Your task to perform on an android device: refresh tabs in the chrome app Image 0: 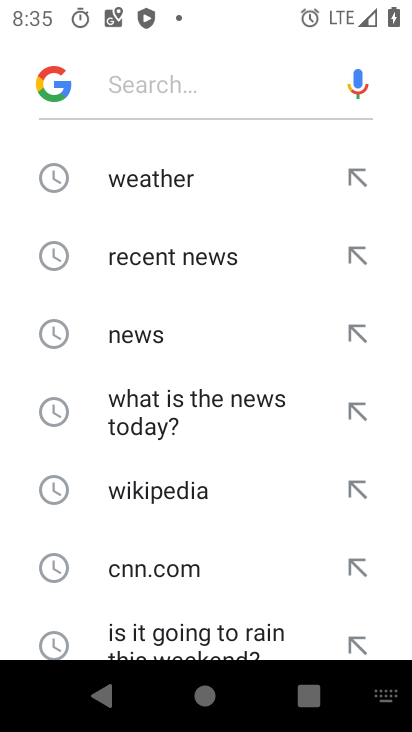
Step 0: press home button
Your task to perform on an android device: refresh tabs in the chrome app Image 1: 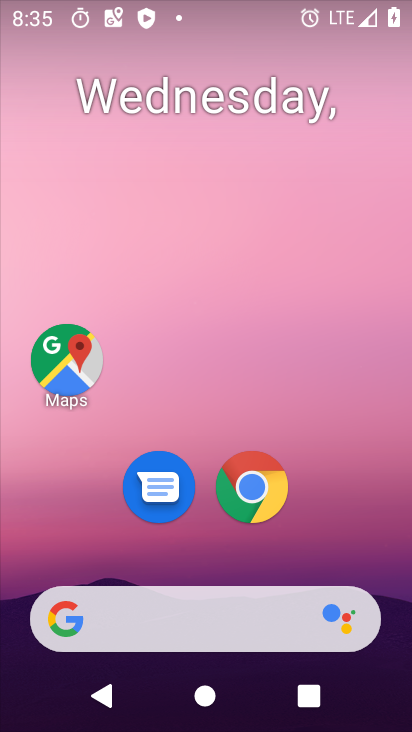
Step 1: click (258, 493)
Your task to perform on an android device: refresh tabs in the chrome app Image 2: 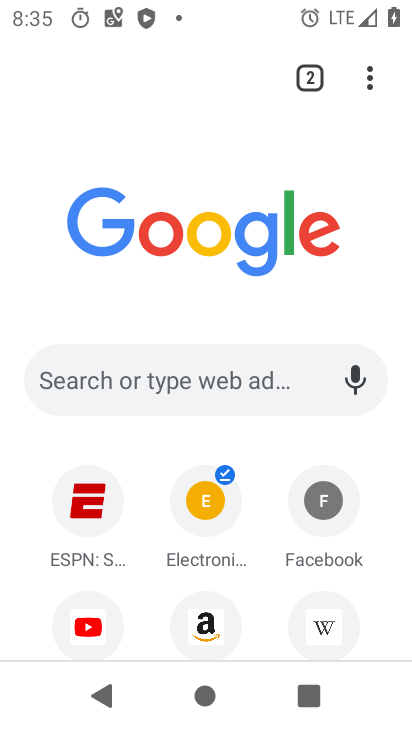
Step 2: click (370, 79)
Your task to perform on an android device: refresh tabs in the chrome app Image 3: 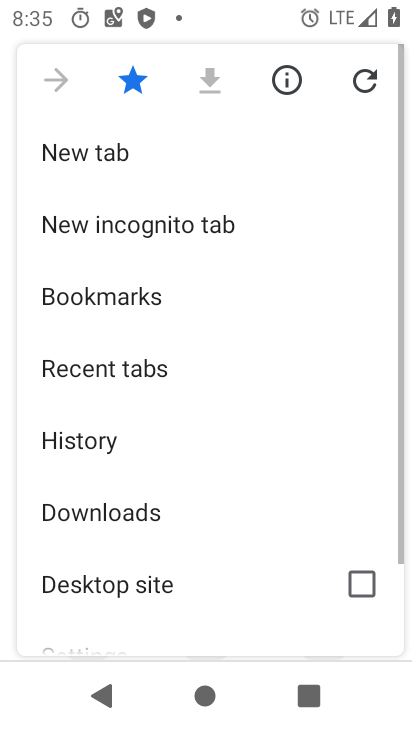
Step 3: click (370, 79)
Your task to perform on an android device: refresh tabs in the chrome app Image 4: 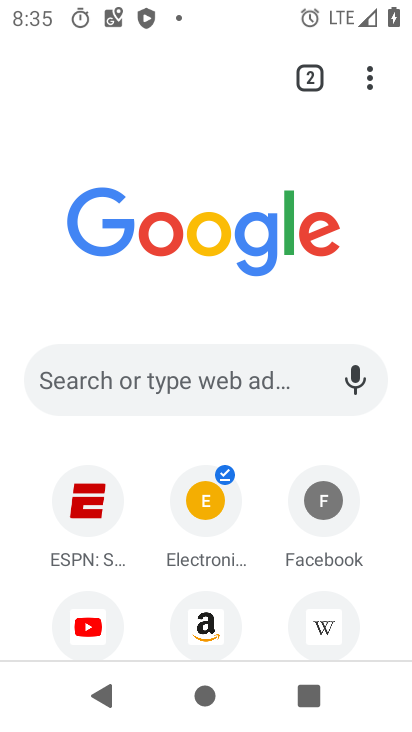
Step 4: task complete